Your task to perform on an android device: Open Google Chrome and open the bookmarks view Image 0: 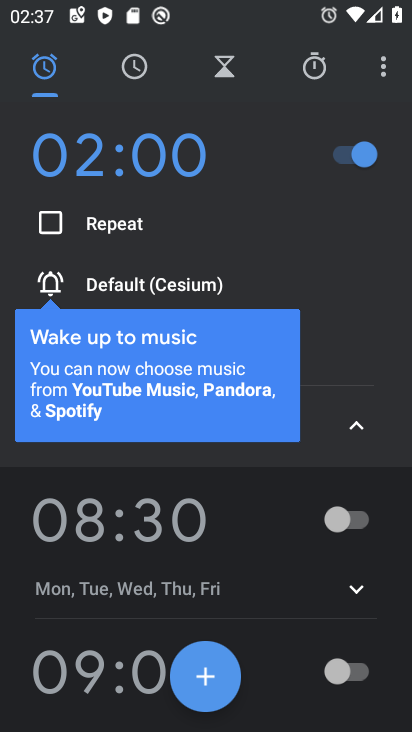
Step 0: press home button
Your task to perform on an android device: Open Google Chrome and open the bookmarks view Image 1: 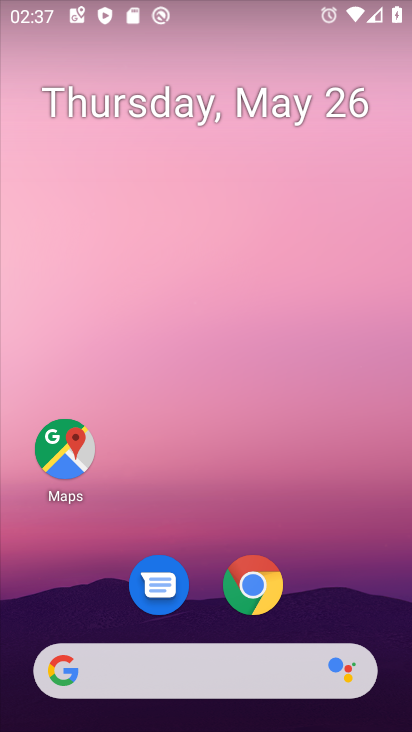
Step 1: click (262, 579)
Your task to perform on an android device: Open Google Chrome and open the bookmarks view Image 2: 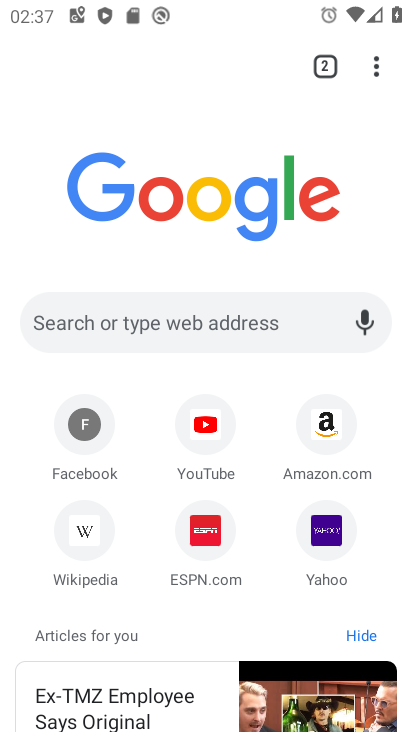
Step 2: click (376, 64)
Your task to perform on an android device: Open Google Chrome and open the bookmarks view Image 3: 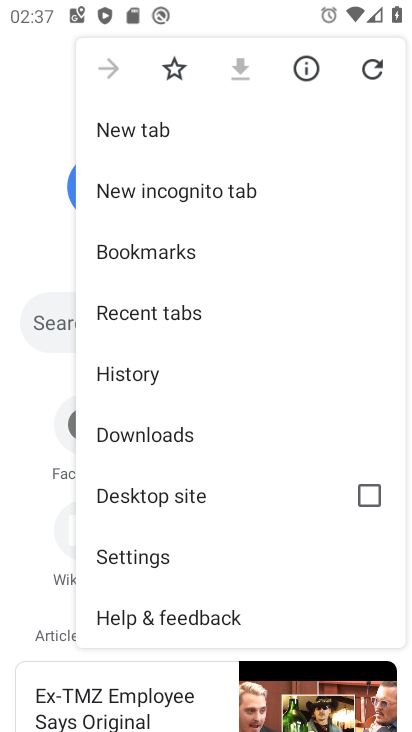
Step 3: click (207, 244)
Your task to perform on an android device: Open Google Chrome and open the bookmarks view Image 4: 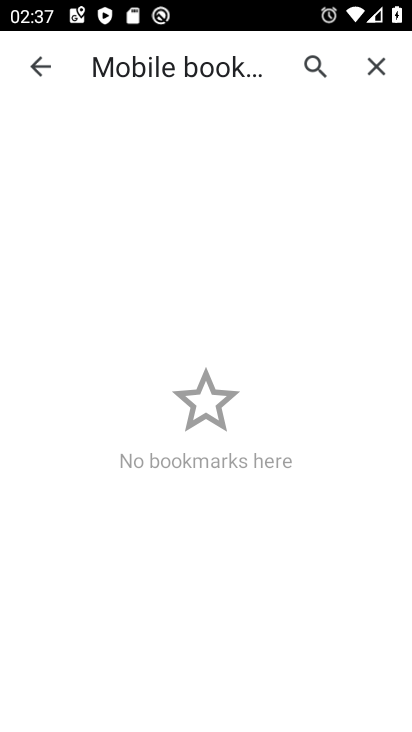
Step 4: task complete